Your task to perform on an android device: Show me recent news Image 0: 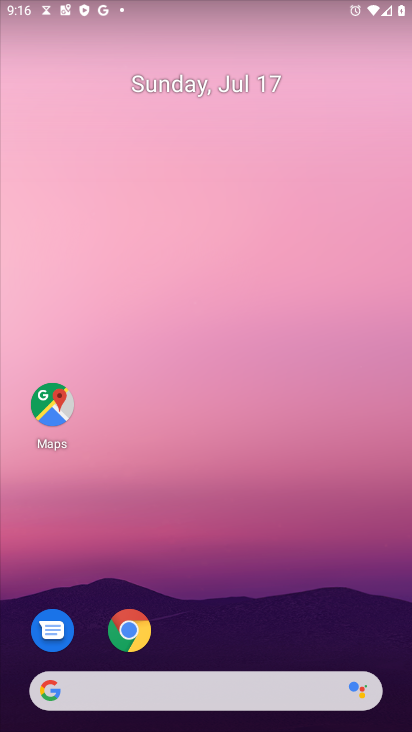
Step 0: click (202, 644)
Your task to perform on an android device: Show me recent news Image 1: 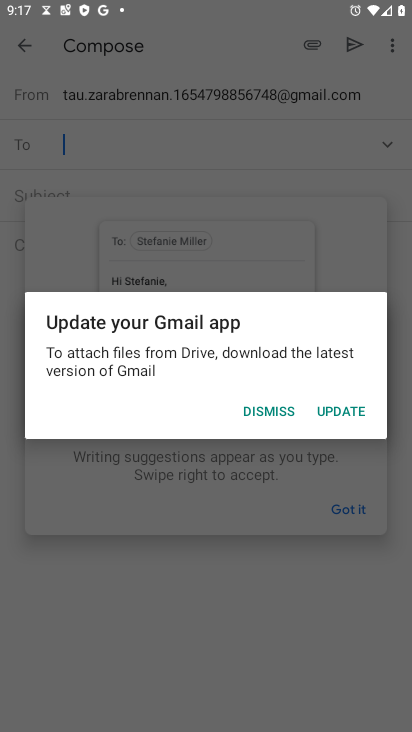
Step 1: press home button
Your task to perform on an android device: Show me recent news Image 2: 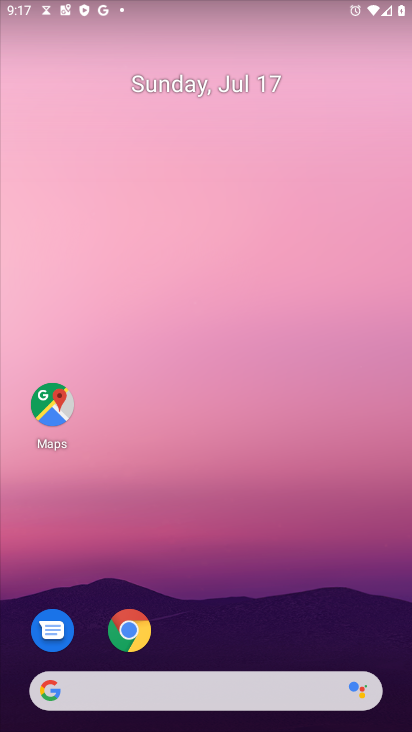
Step 2: drag from (187, 400) to (185, 191)
Your task to perform on an android device: Show me recent news Image 3: 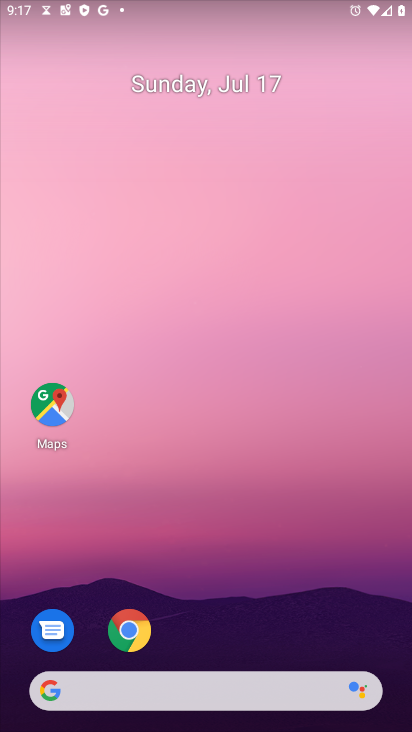
Step 3: drag from (213, 318) to (182, 54)
Your task to perform on an android device: Show me recent news Image 4: 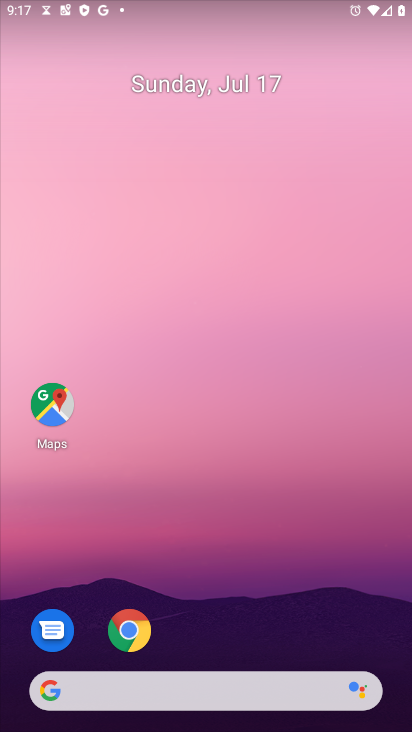
Step 4: drag from (191, 531) to (187, 20)
Your task to perform on an android device: Show me recent news Image 5: 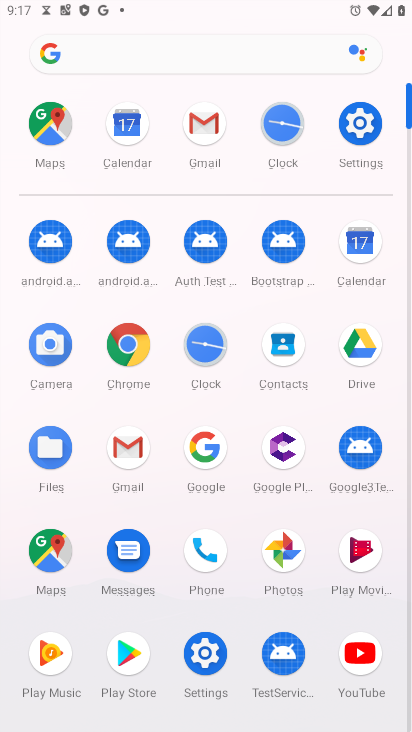
Step 5: click (200, 447)
Your task to perform on an android device: Show me recent news Image 6: 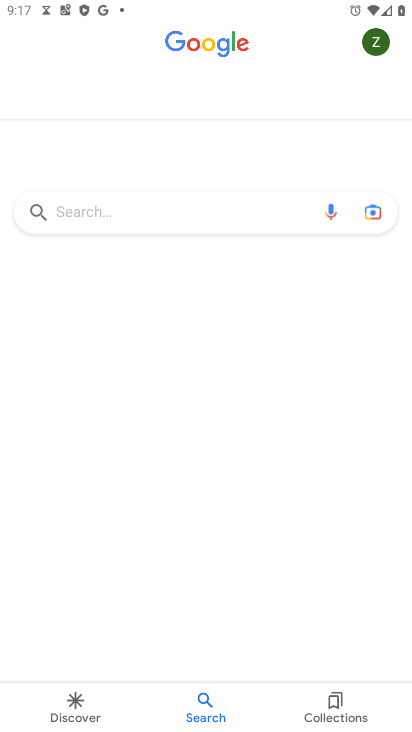
Step 6: type "recent news"
Your task to perform on an android device: Show me recent news Image 7: 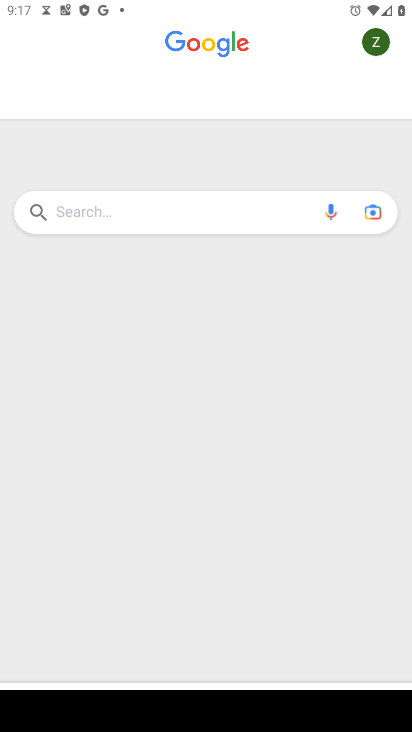
Step 7: click (214, 205)
Your task to perform on an android device: Show me recent news Image 8: 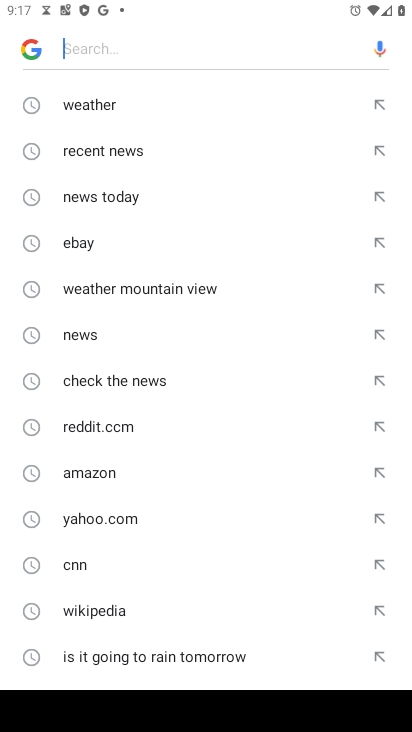
Step 8: click (108, 154)
Your task to perform on an android device: Show me recent news Image 9: 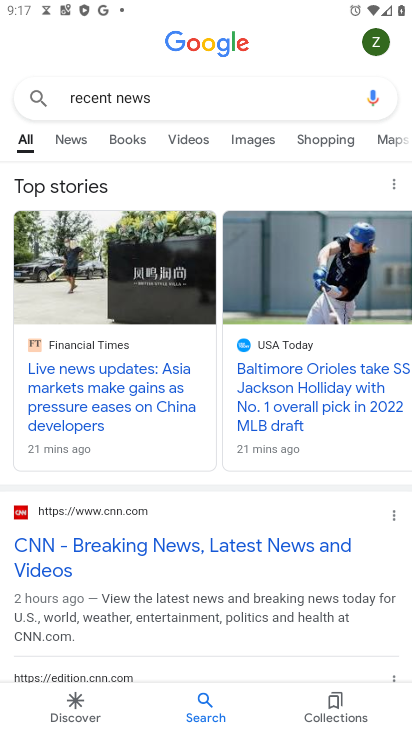
Step 9: click (65, 141)
Your task to perform on an android device: Show me recent news Image 10: 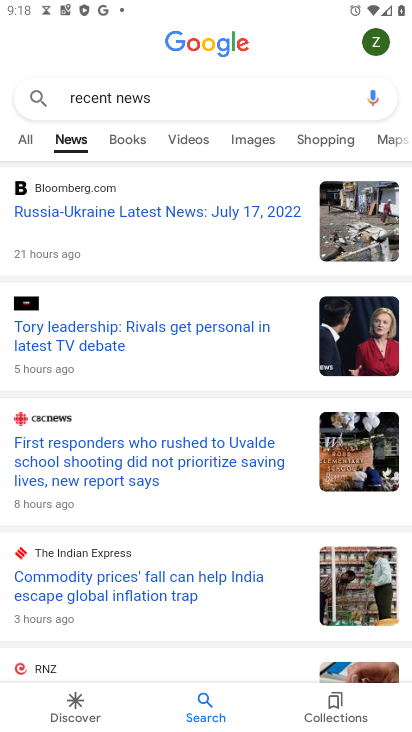
Step 10: task complete